Your task to perform on an android device: Show the shopping cart on amazon.com. Add razer naga to the cart on amazon.com, then select checkout. Image 0: 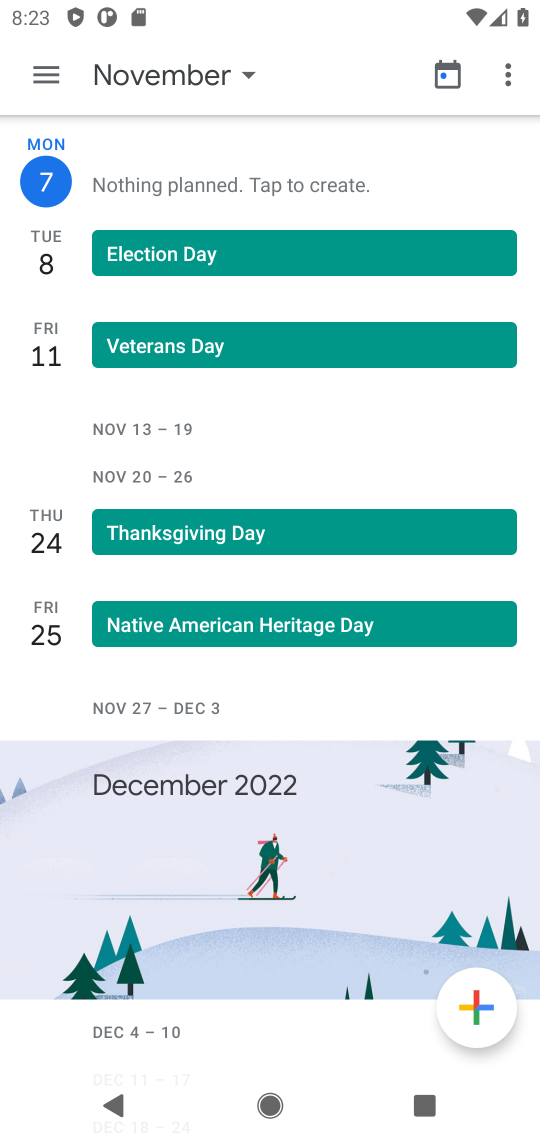
Step 0: press home button
Your task to perform on an android device: Show the shopping cart on amazon.com. Add razer naga to the cart on amazon.com, then select checkout. Image 1: 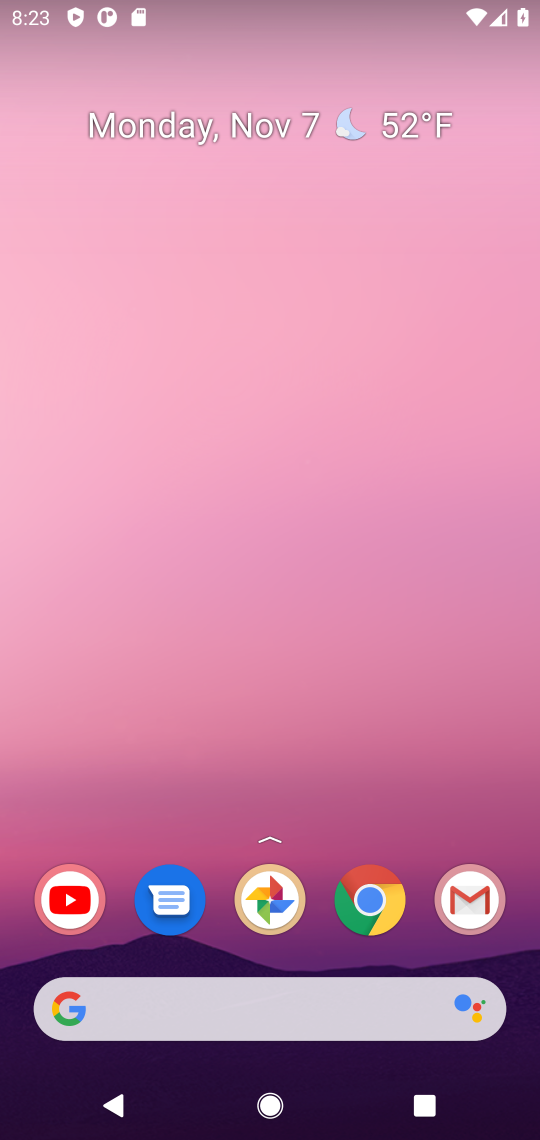
Step 1: click (344, 1013)
Your task to perform on an android device: Show the shopping cart on amazon.com. Add razer naga to the cart on amazon.com, then select checkout. Image 2: 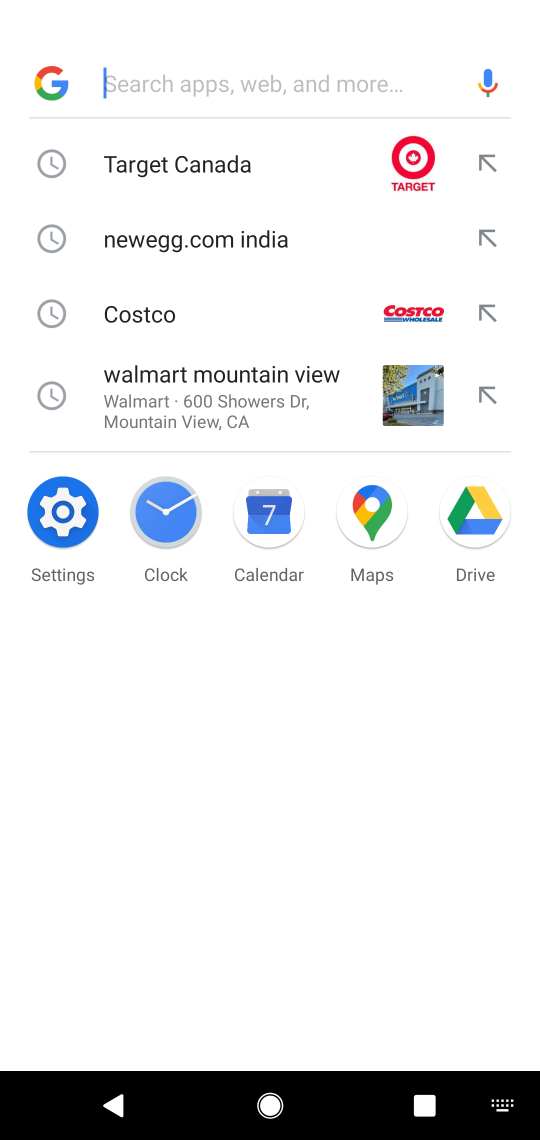
Step 2: type "amazon"
Your task to perform on an android device: Show the shopping cart on amazon.com. Add razer naga to the cart on amazon.com, then select checkout. Image 3: 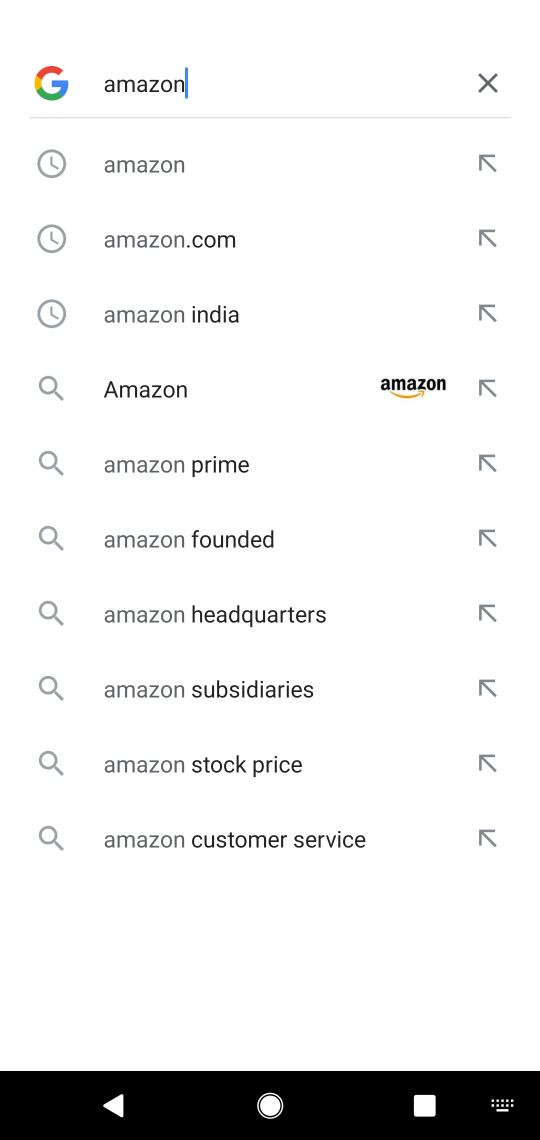
Step 3: click (424, 373)
Your task to perform on an android device: Show the shopping cart on amazon.com. Add razer naga to the cart on amazon.com, then select checkout. Image 4: 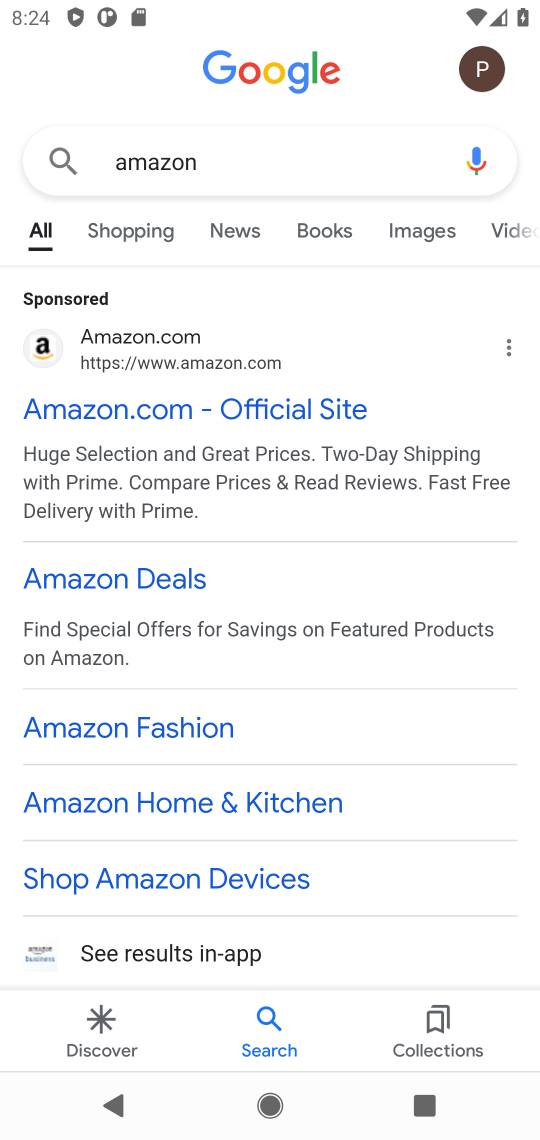
Step 4: click (147, 441)
Your task to perform on an android device: Show the shopping cart on amazon.com. Add razer naga to the cart on amazon.com, then select checkout. Image 5: 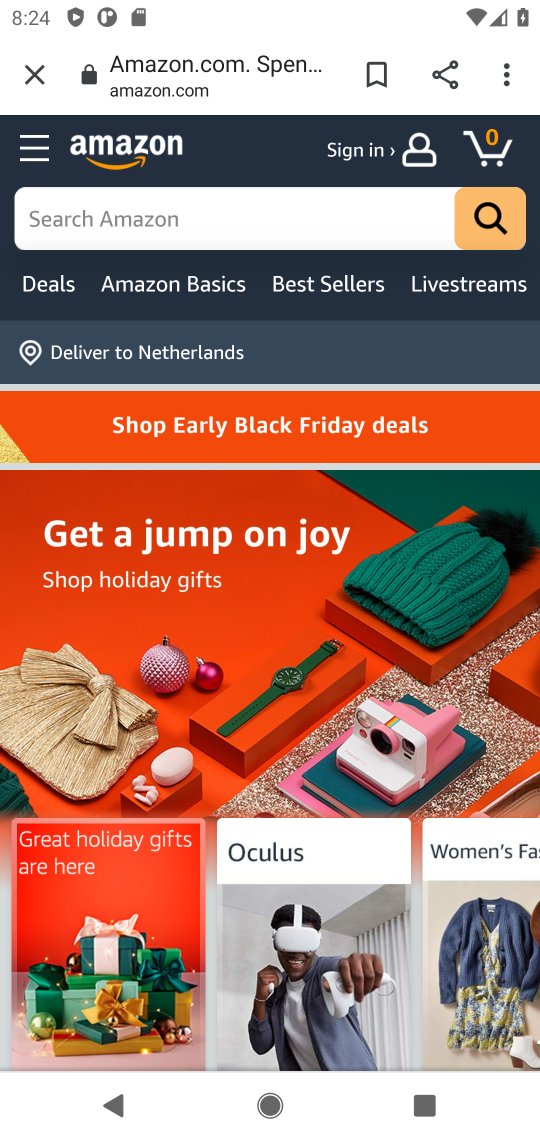
Step 5: task complete